Your task to perform on an android device: turn off wifi Image 0: 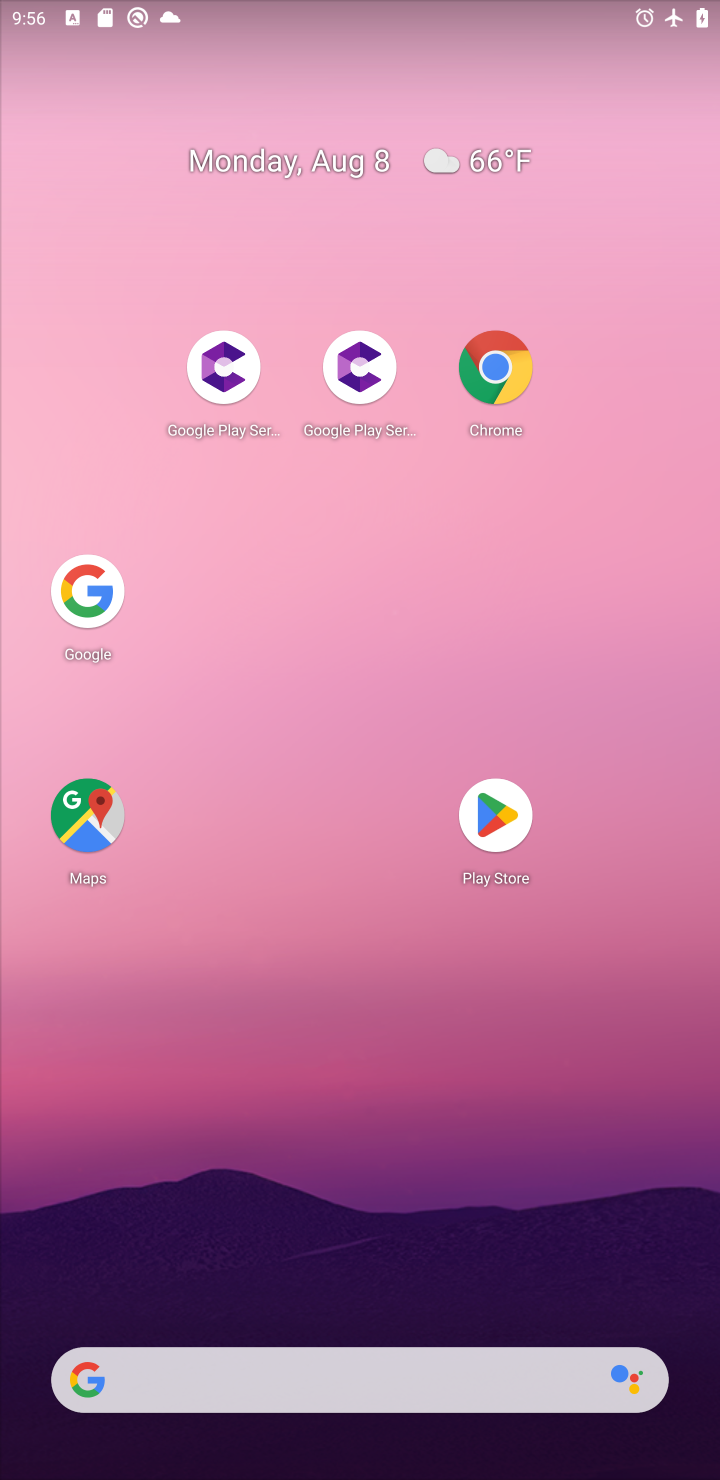
Step 0: drag from (440, 18) to (498, 817)
Your task to perform on an android device: turn off wifi Image 1: 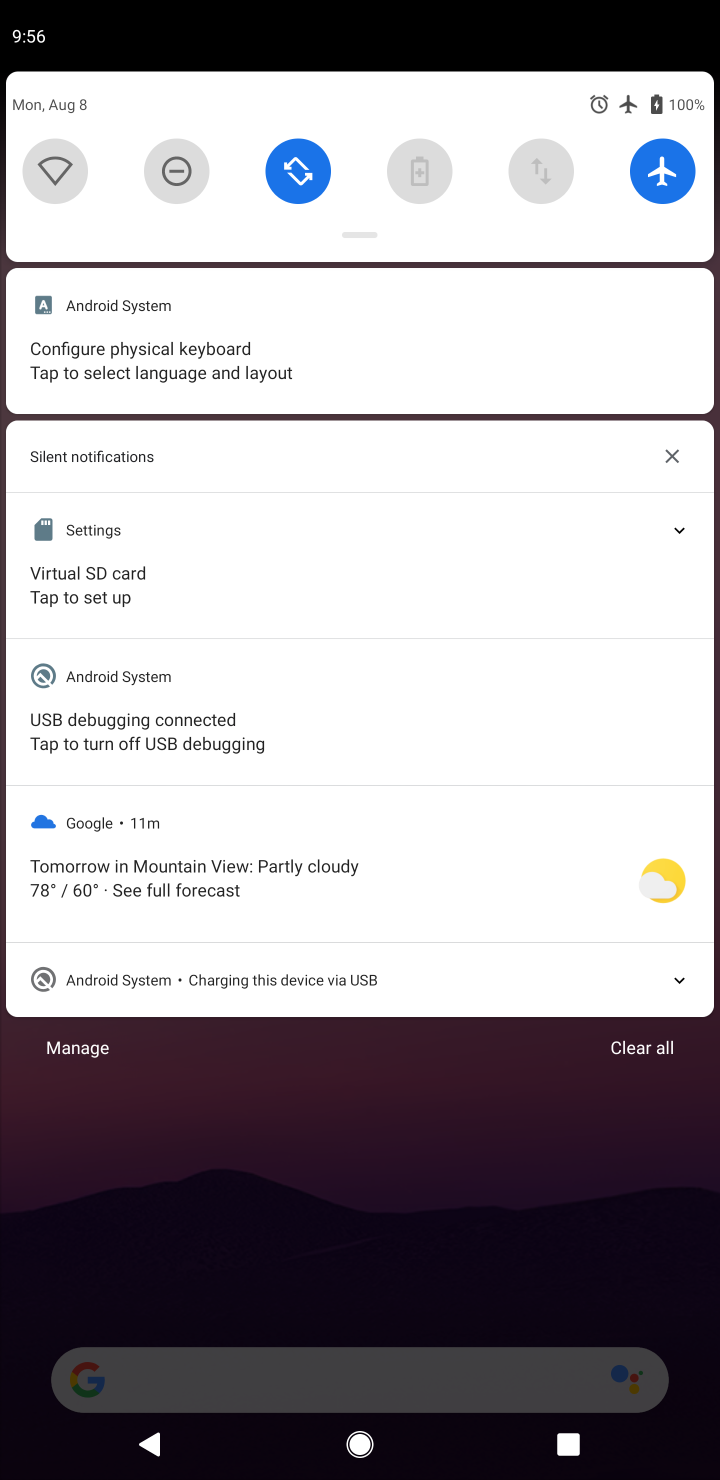
Step 1: task complete